Your task to perform on an android device: Open Amazon Image 0: 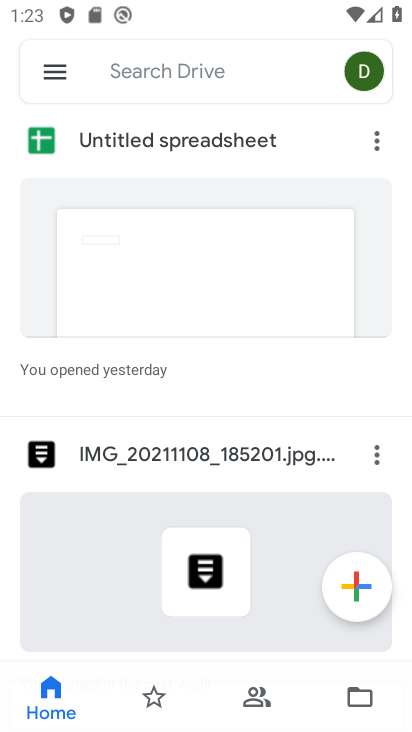
Step 0: press back button
Your task to perform on an android device: Open Amazon Image 1: 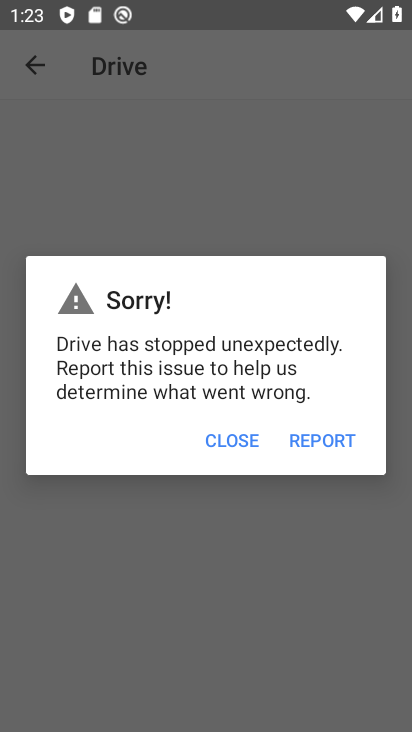
Step 1: press home button
Your task to perform on an android device: Open Amazon Image 2: 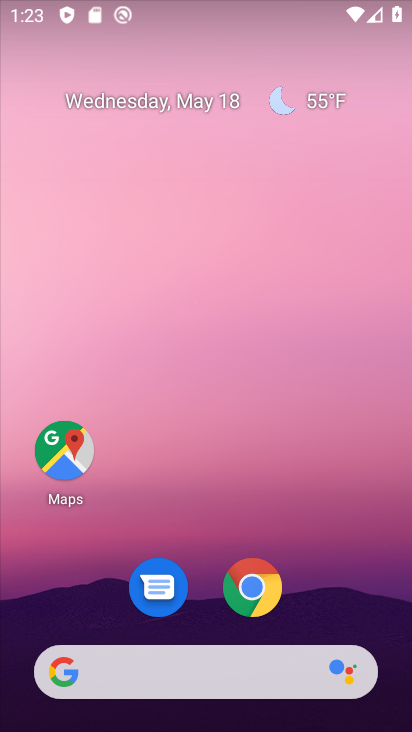
Step 2: click (269, 593)
Your task to perform on an android device: Open Amazon Image 3: 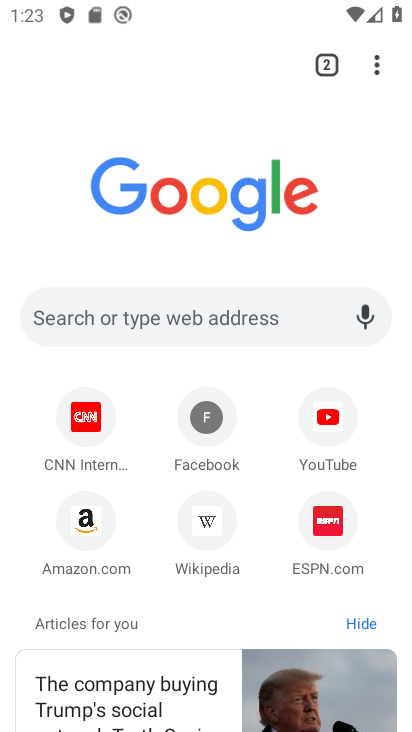
Step 3: click (64, 515)
Your task to perform on an android device: Open Amazon Image 4: 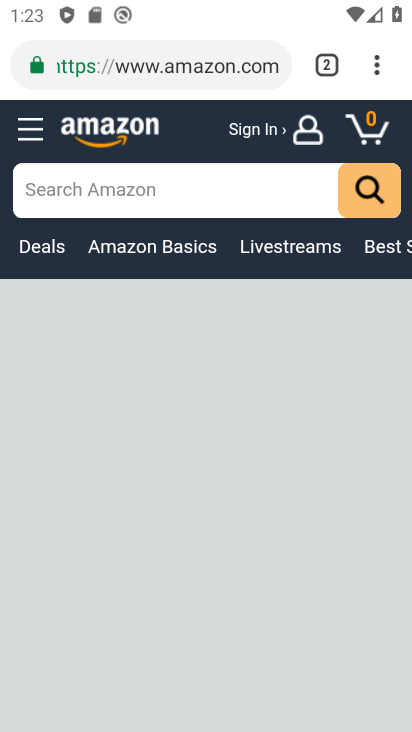
Step 4: task complete